Your task to perform on an android device: change timer sound Image 0: 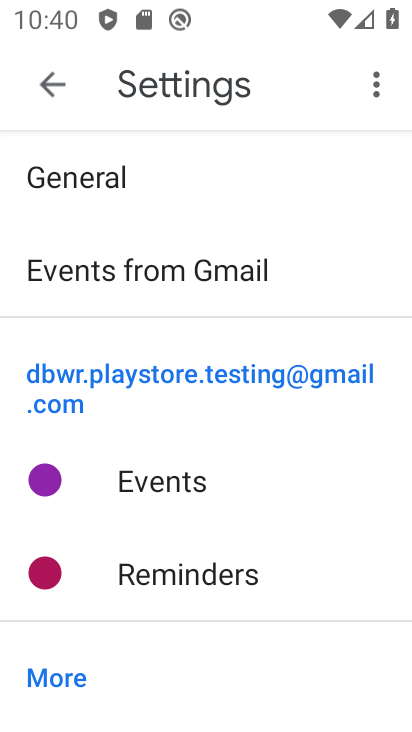
Step 0: press home button
Your task to perform on an android device: change timer sound Image 1: 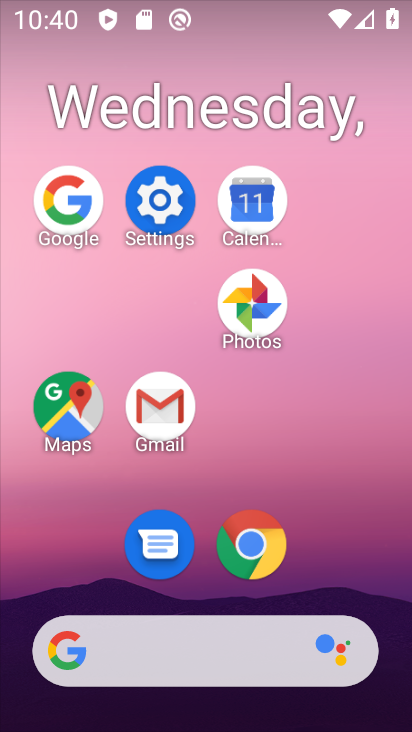
Step 1: drag from (333, 507) to (324, 123)
Your task to perform on an android device: change timer sound Image 2: 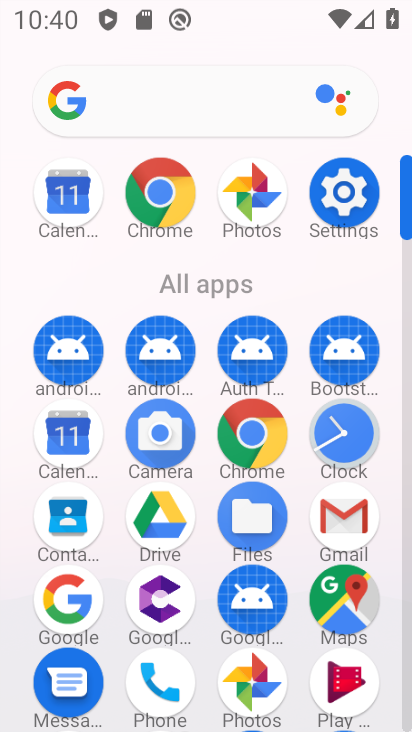
Step 2: drag from (338, 432) to (327, 249)
Your task to perform on an android device: change timer sound Image 3: 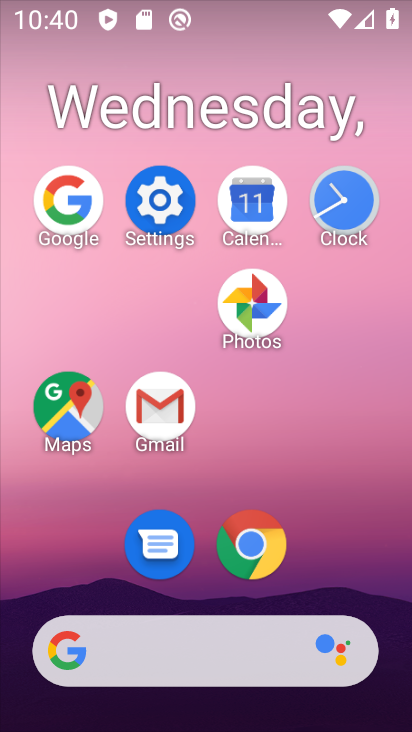
Step 3: click (330, 213)
Your task to perform on an android device: change timer sound Image 4: 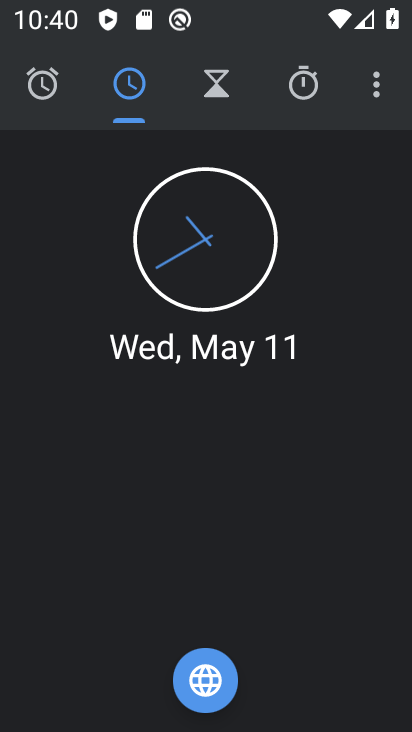
Step 4: click (374, 87)
Your task to perform on an android device: change timer sound Image 5: 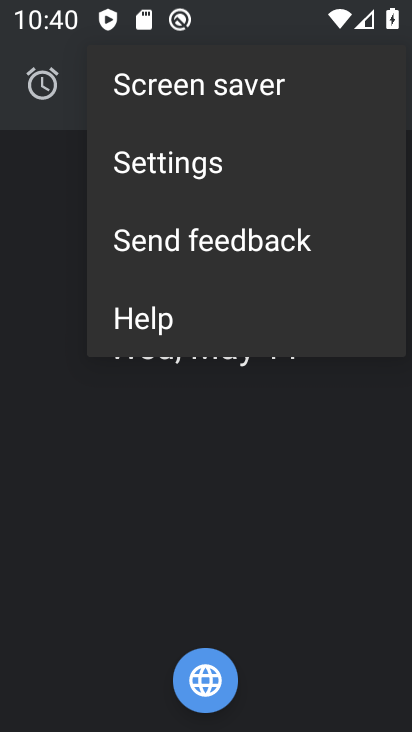
Step 5: click (243, 179)
Your task to perform on an android device: change timer sound Image 6: 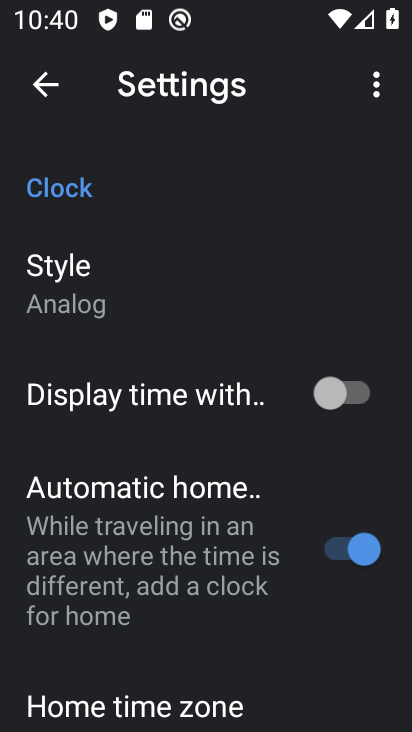
Step 6: drag from (195, 630) to (241, 180)
Your task to perform on an android device: change timer sound Image 7: 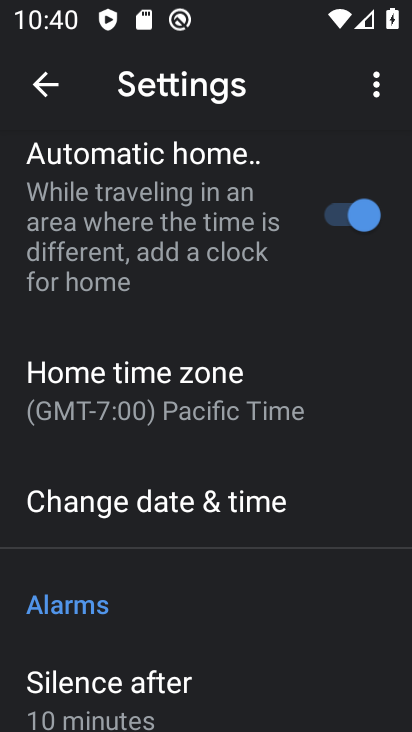
Step 7: drag from (171, 657) to (213, 276)
Your task to perform on an android device: change timer sound Image 8: 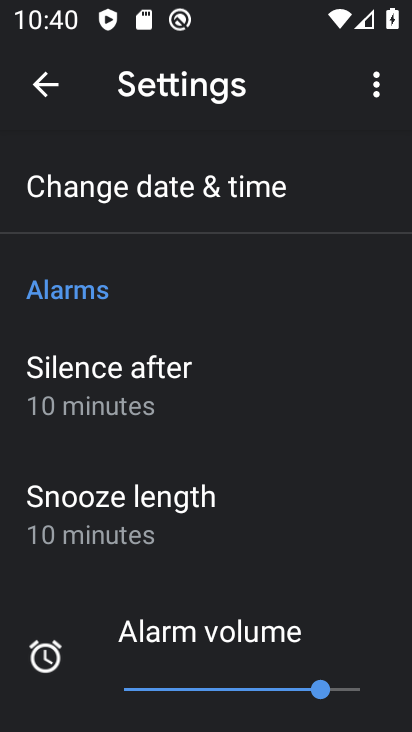
Step 8: drag from (266, 524) to (290, 225)
Your task to perform on an android device: change timer sound Image 9: 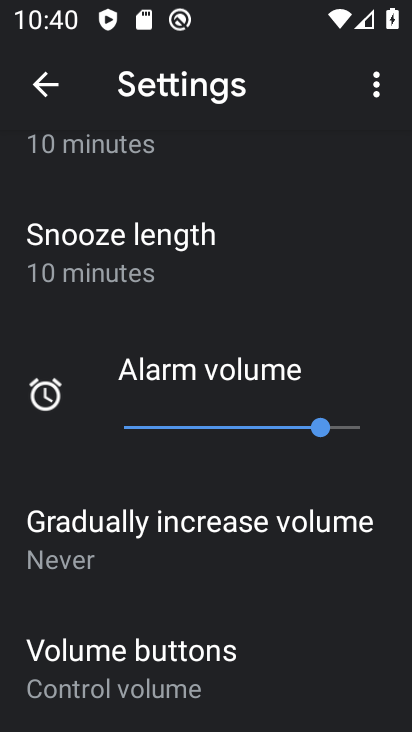
Step 9: drag from (228, 593) to (248, 254)
Your task to perform on an android device: change timer sound Image 10: 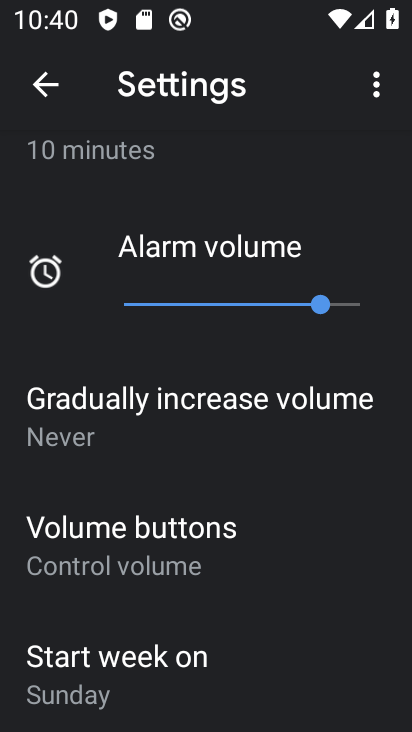
Step 10: drag from (210, 640) to (244, 256)
Your task to perform on an android device: change timer sound Image 11: 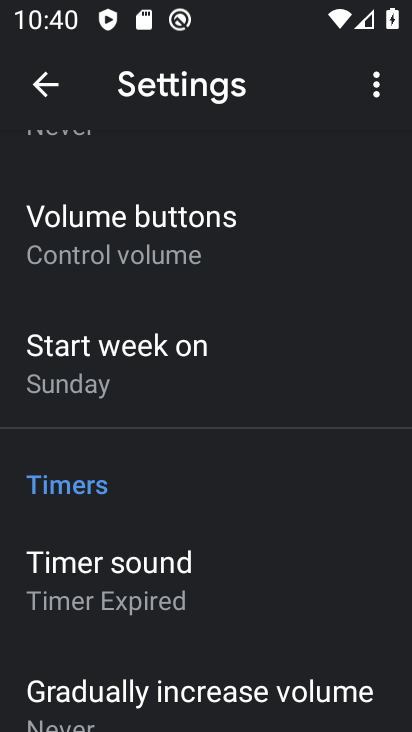
Step 11: drag from (203, 700) to (242, 275)
Your task to perform on an android device: change timer sound Image 12: 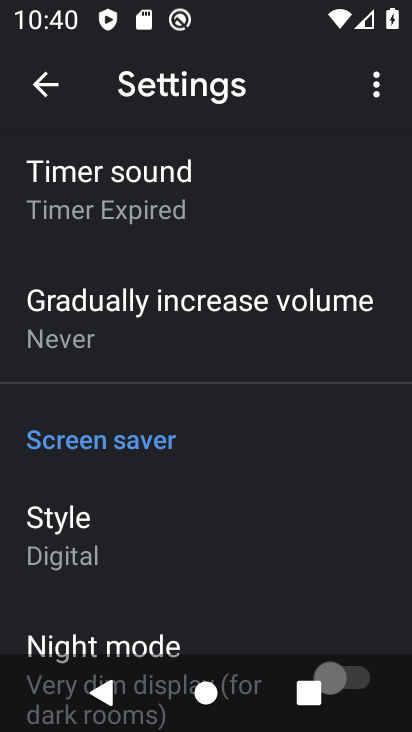
Step 12: click (151, 182)
Your task to perform on an android device: change timer sound Image 13: 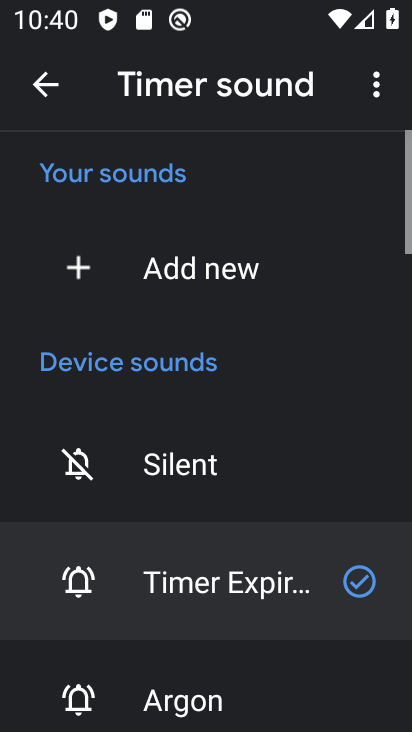
Step 13: click (205, 704)
Your task to perform on an android device: change timer sound Image 14: 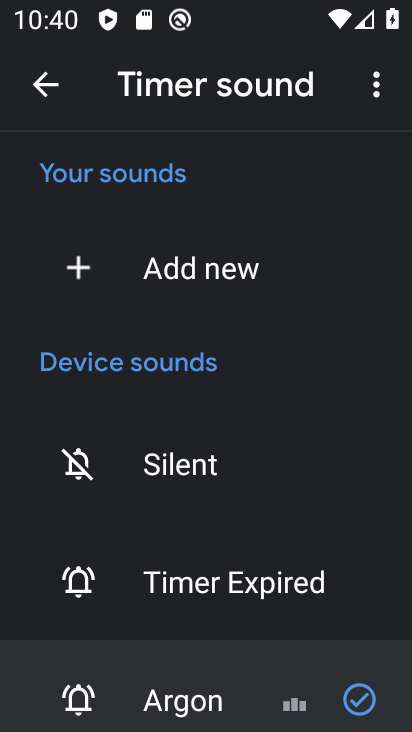
Step 14: task complete